Your task to perform on an android device: open app "Google Drive" Image 0: 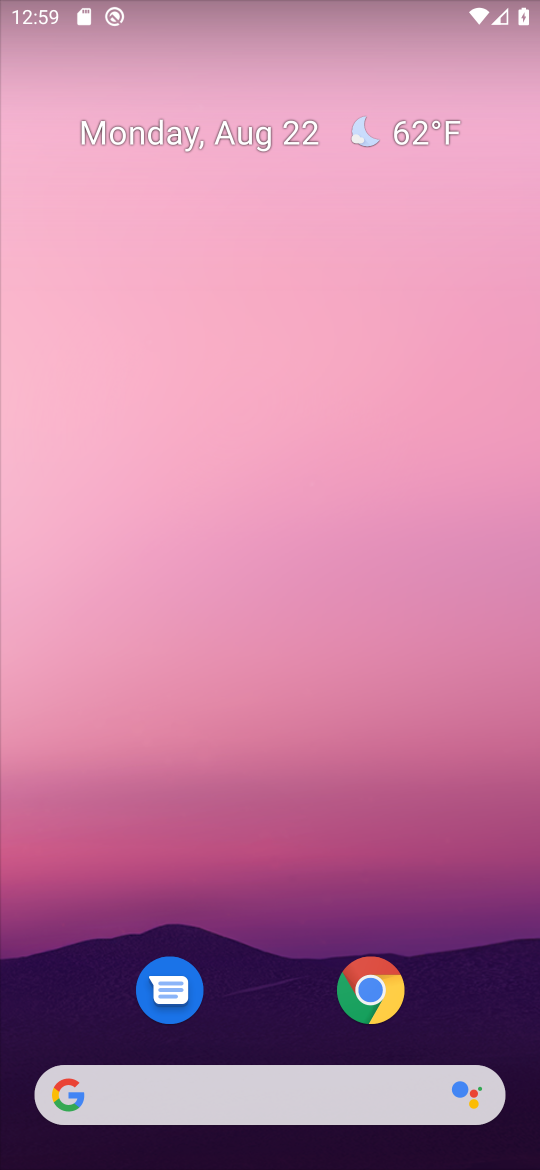
Step 0: drag from (231, 932) to (245, 298)
Your task to perform on an android device: open app "Google Drive" Image 1: 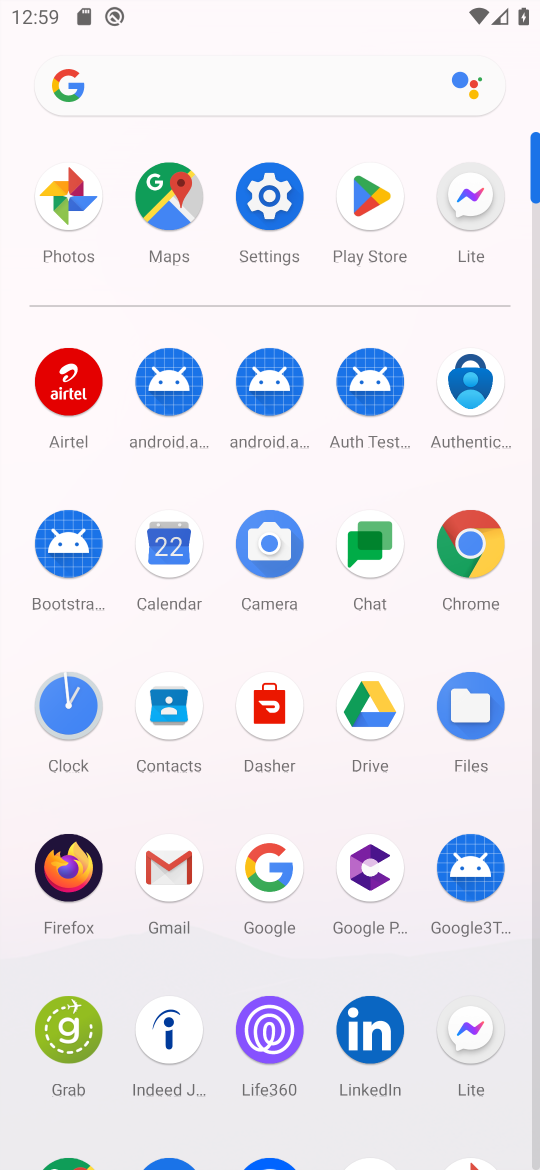
Step 1: click (364, 197)
Your task to perform on an android device: open app "Google Drive" Image 2: 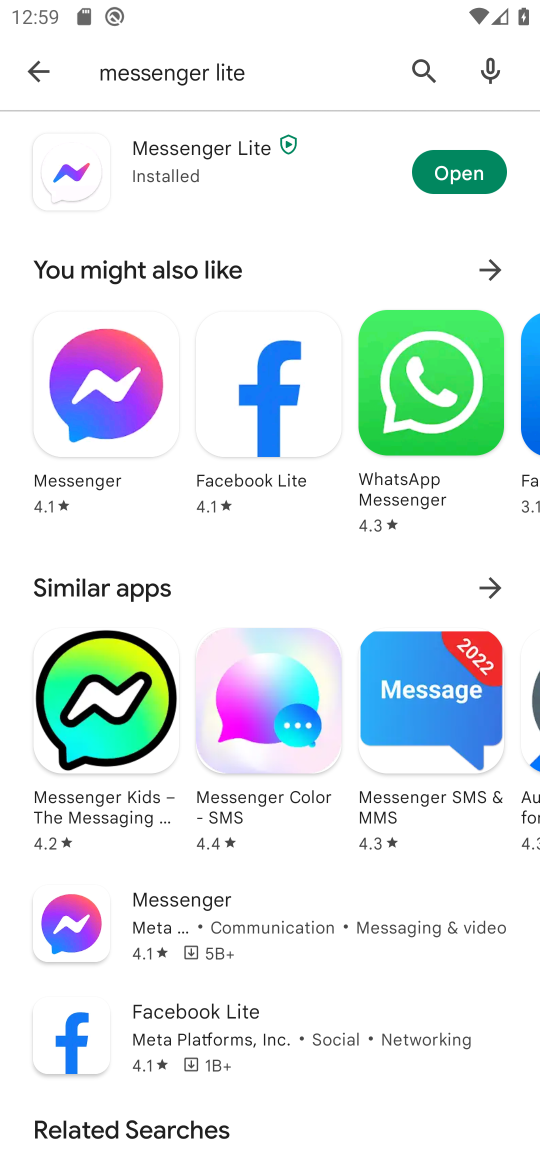
Step 2: click (411, 65)
Your task to perform on an android device: open app "Google Drive" Image 3: 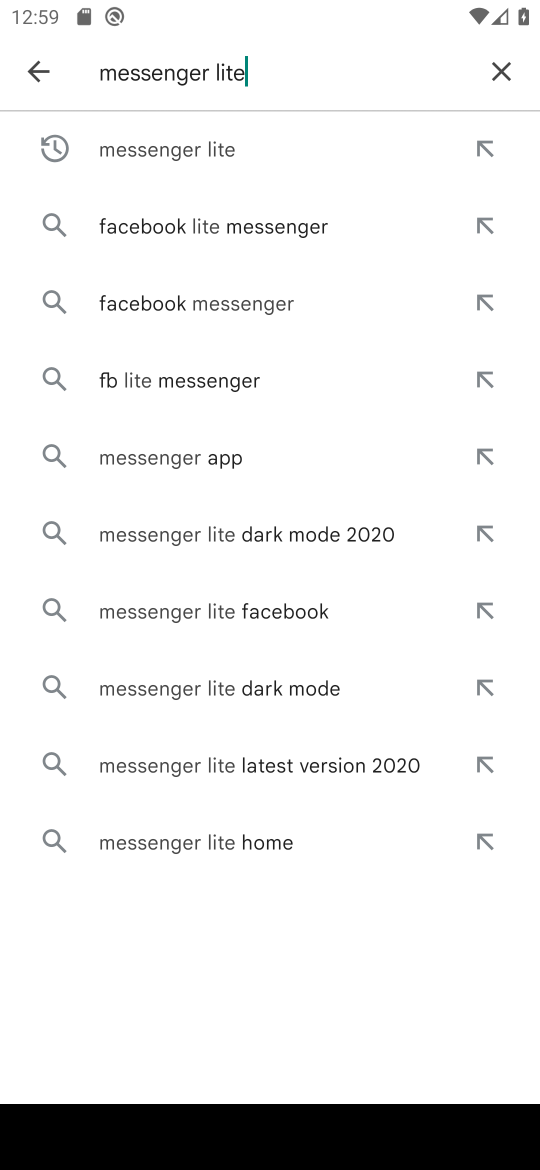
Step 3: click (490, 73)
Your task to perform on an android device: open app "Google Drive" Image 4: 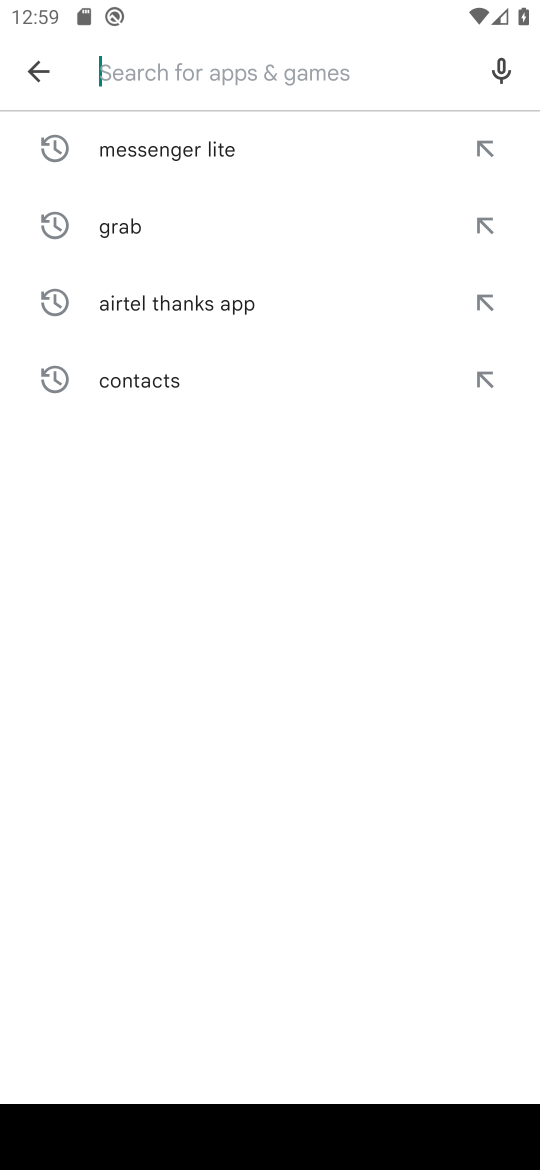
Step 4: type "Google Drive"
Your task to perform on an android device: open app "Google Drive" Image 5: 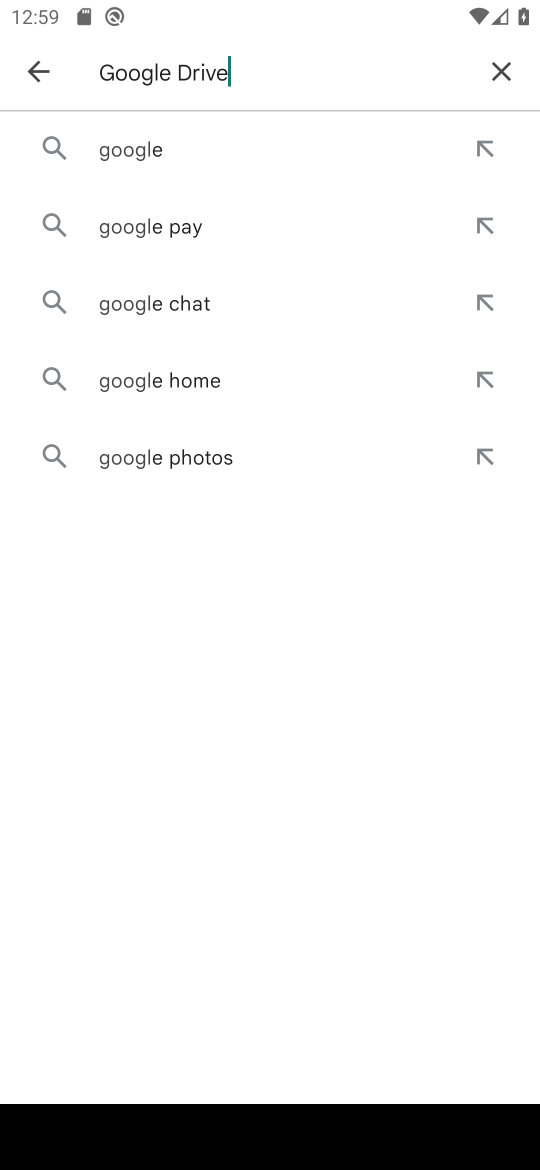
Step 5: type ""
Your task to perform on an android device: open app "Google Drive" Image 6: 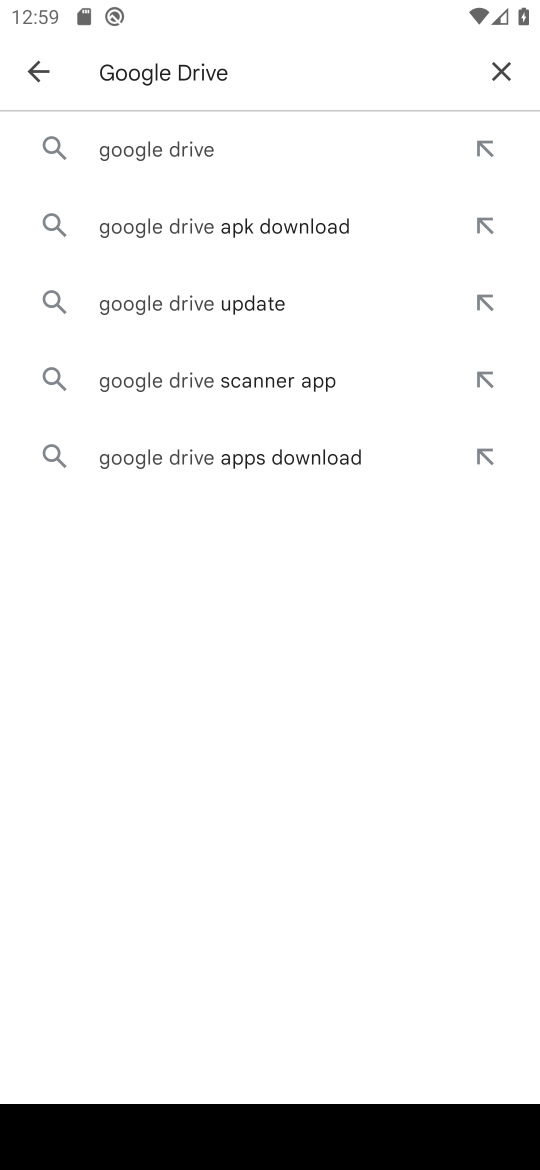
Step 6: click (154, 145)
Your task to perform on an android device: open app "Google Drive" Image 7: 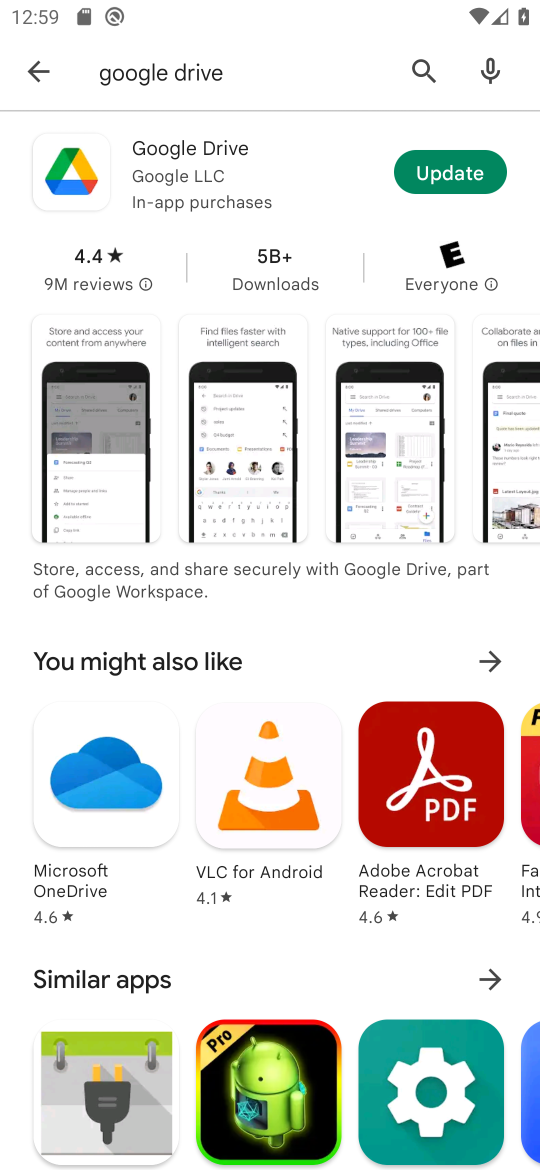
Step 7: click (199, 162)
Your task to perform on an android device: open app "Google Drive" Image 8: 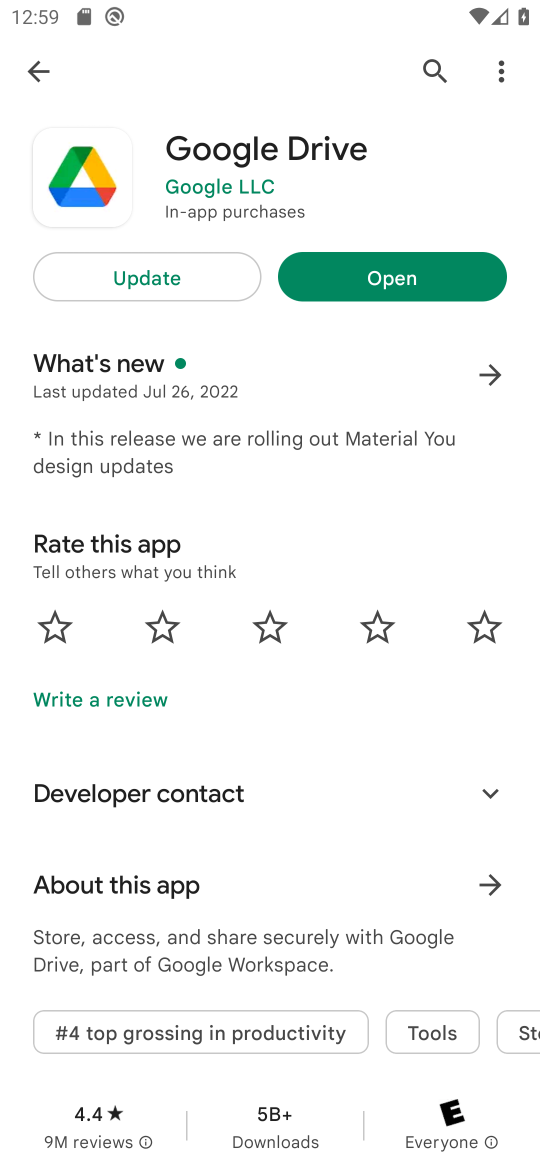
Step 8: click (354, 272)
Your task to perform on an android device: open app "Google Drive" Image 9: 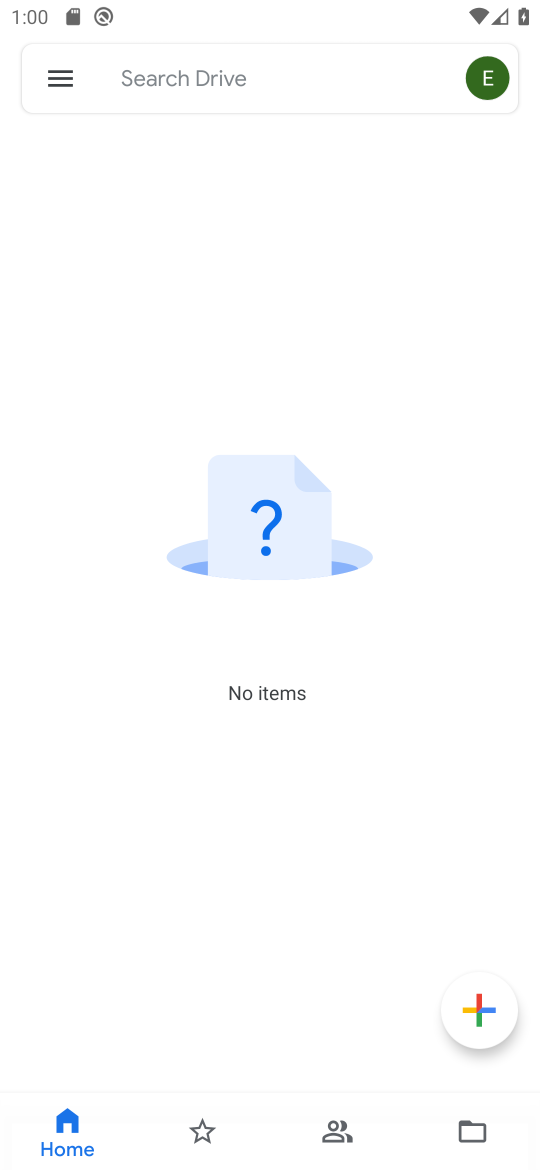
Step 9: task complete